Your task to perform on an android device: toggle location history Image 0: 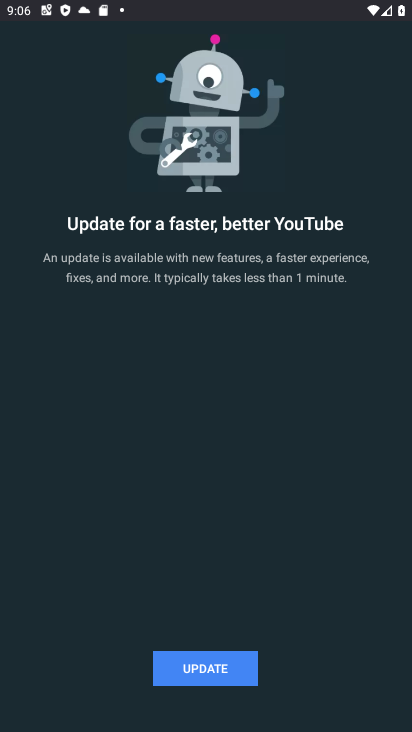
Step 0: press home button
Your task to perform on an android device: toggle location history Image 1: 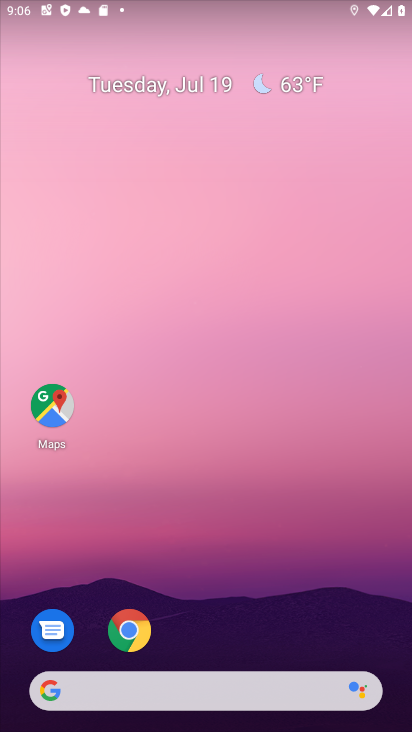
Step 1: drag from (199, 686) to (176, 75)
Your task to perform on an android device: toggle location history Image 2: 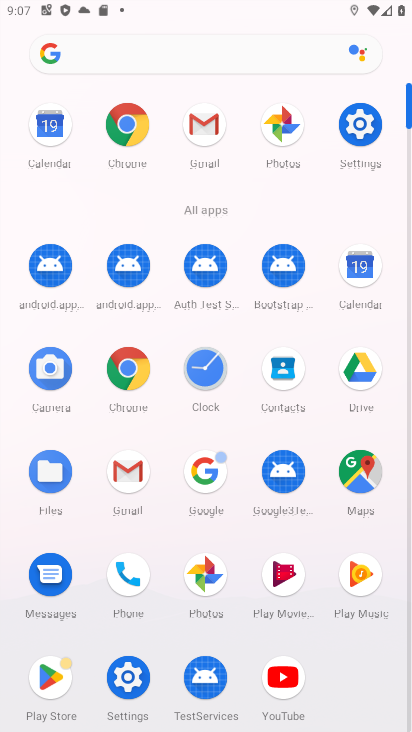
Step 2: click (361, 123)
Your task to perform on an android device: toggle location history Image 3: 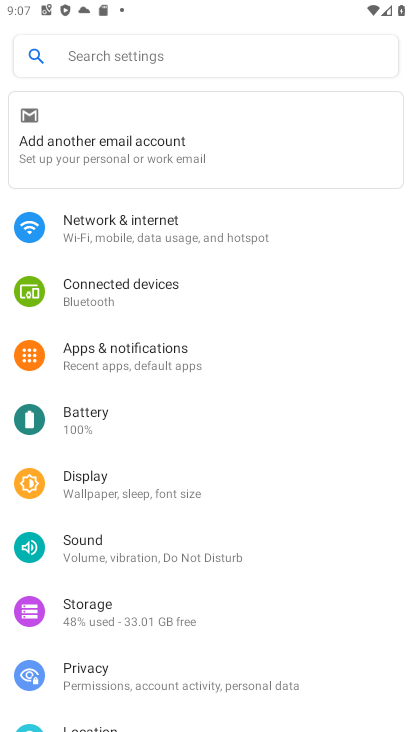
Step 3: drag from (124, 514) to (154, 404)
Your task to perform on an android device: toggle location history Image 4: 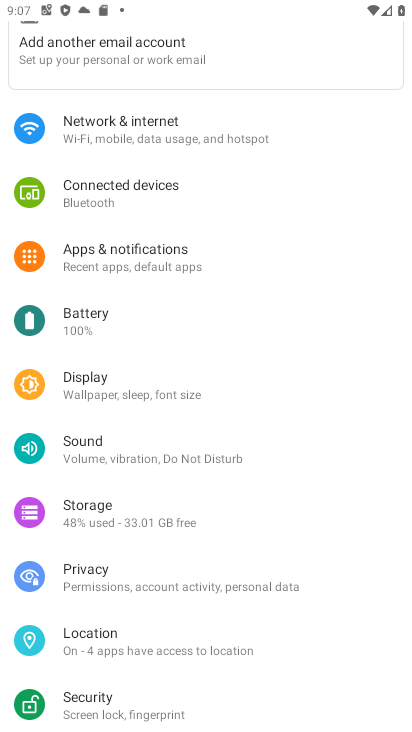
Step 4: drag from (143, 551) to (203, 462)
Your task to perform on an android device: toggle location history Image 5: 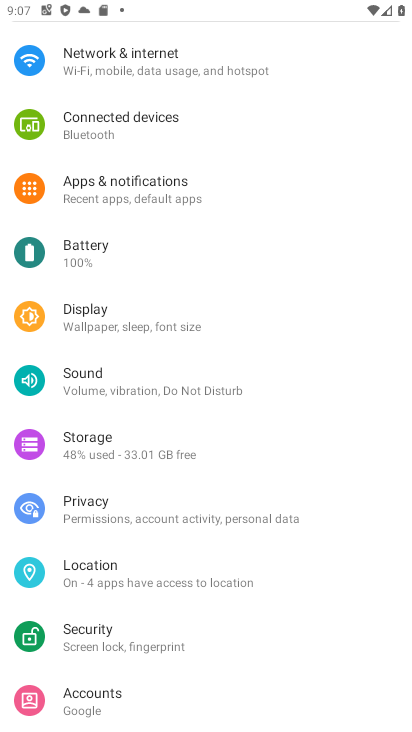
Step 5: click (154, 582)
Your task to perform on an android device: toggle location history Image 6: 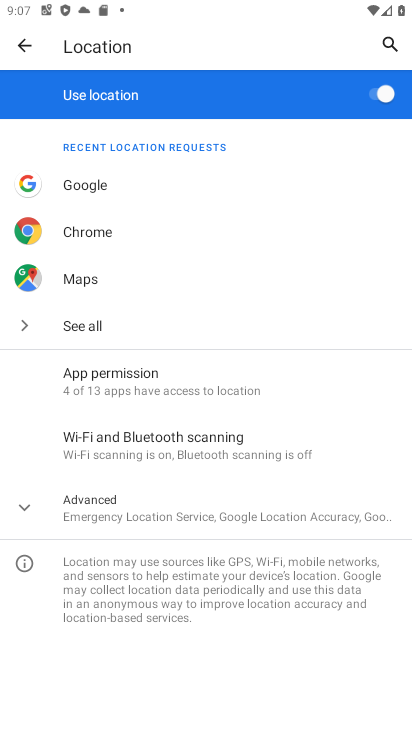
Step 6: click (145, 510)
Your task to perform on an android device: toggle location history Image 7: 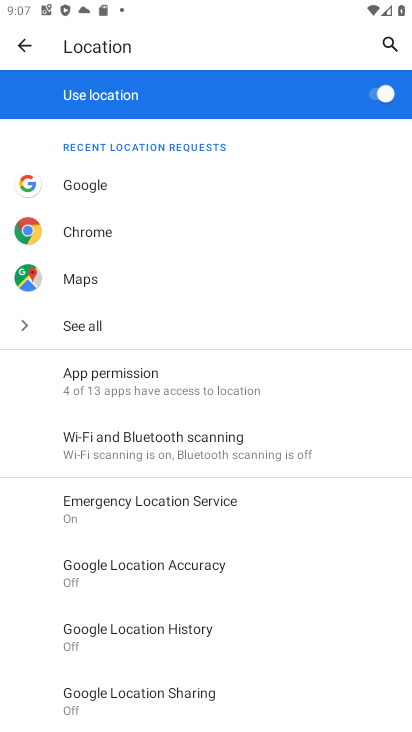
Step 7: click (140, 632)
Your task to perform on an android device: toggle location history Image 8: 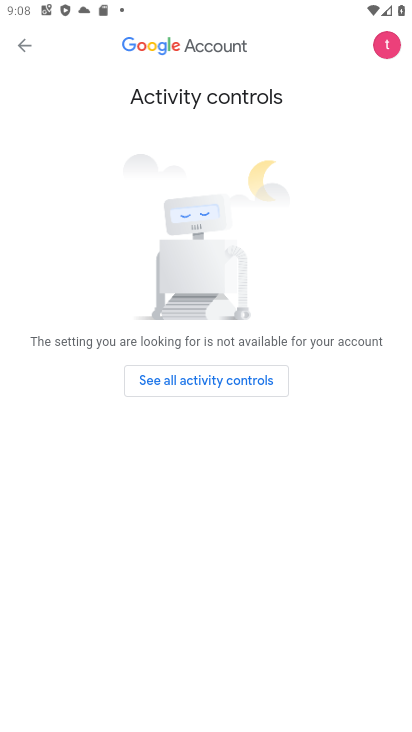
Step 8: click (208, 379)
Your task to perform on an android device: toggle location history Image 9: 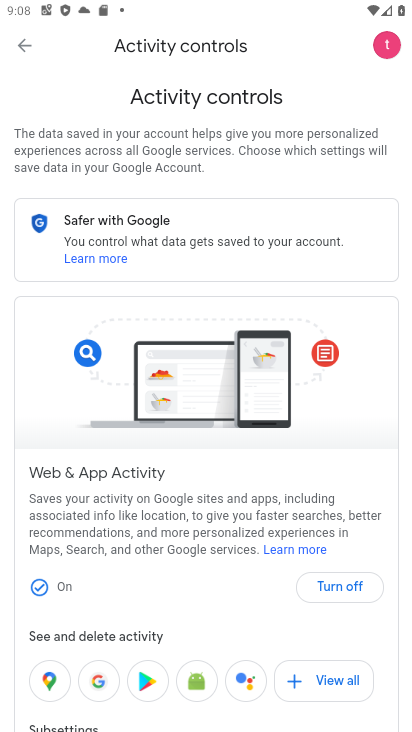
Step 9: click (346, 582)
Your task to perform on an android device: toggle location history Image 10: 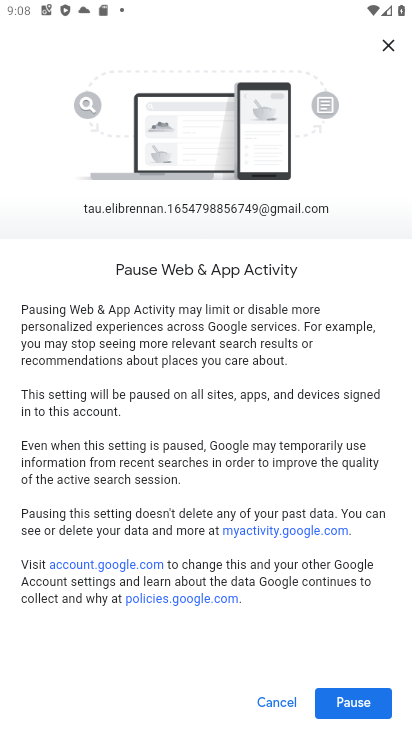
Step 10: click (356, 706)
Your task to perform on an android device: toggle location history Image 11: 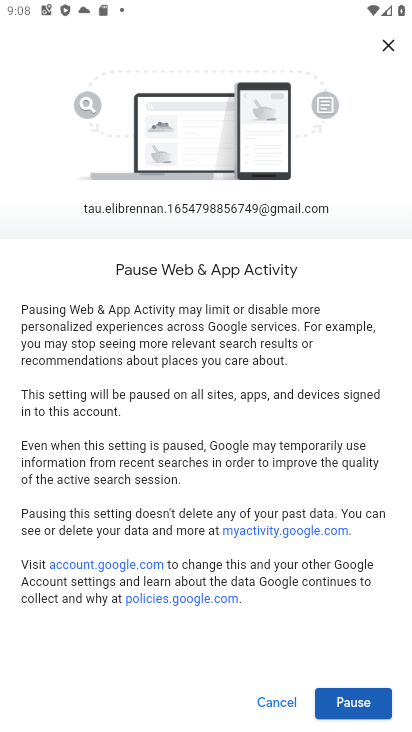
Step 11: click (359, 700)
Your task to perform on an android device: toggle location history Image 12: 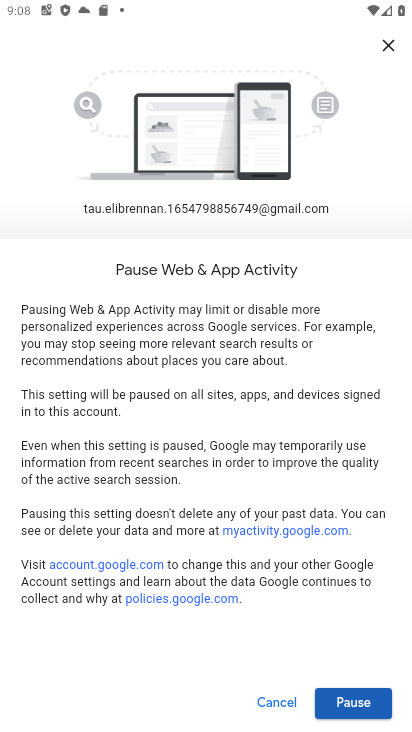
Step 12: click (359, 700)
Your task to perform on an android device: toggle location history Image 13: 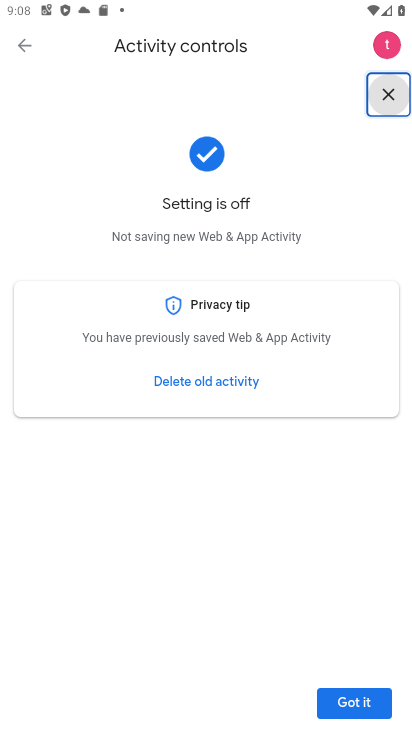
Step 13: click (363, 698)
Your task to perform on an android device: toggle location history Image 14: 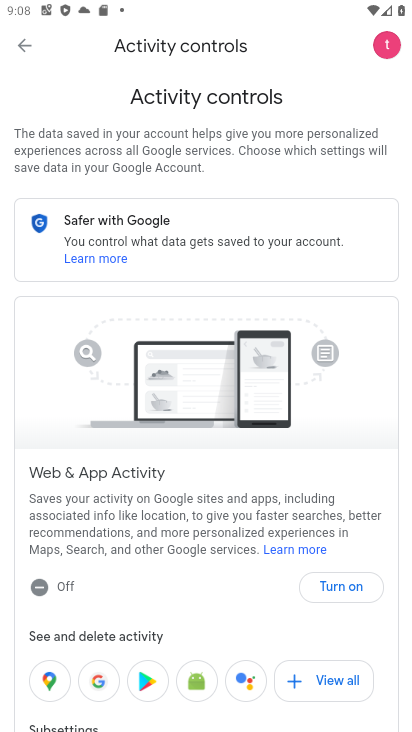
Step 14: task complete